Your task to perform on an android device: See recent photos Image 0: 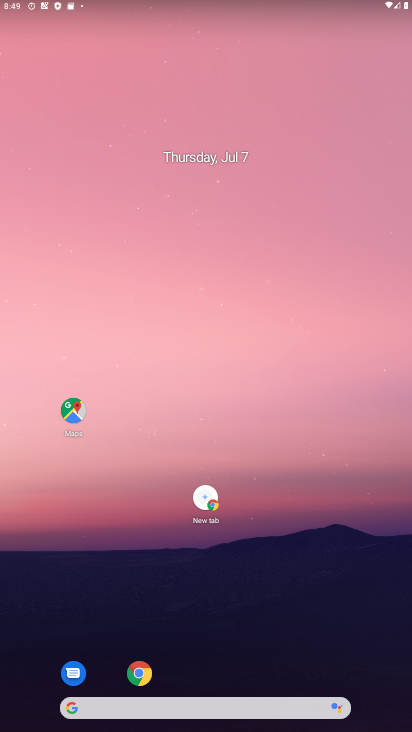
Step 0: press home button
Your task to perform on an android device: See recent photos Image 1: 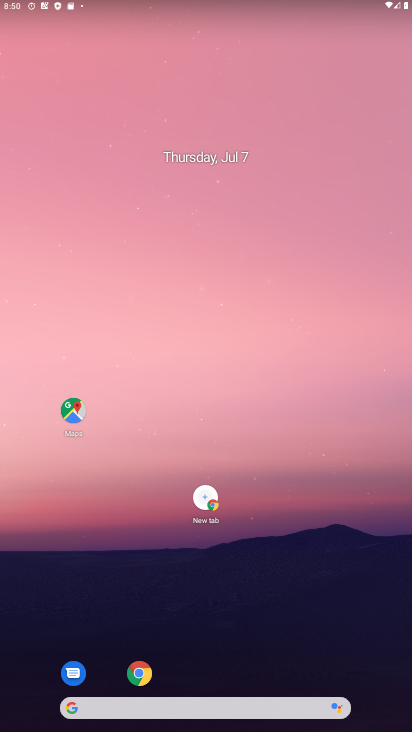
Step 1: drag from (301, 639) to (236, 0)
Your task to perform on an android device: See recent photos Image 2: 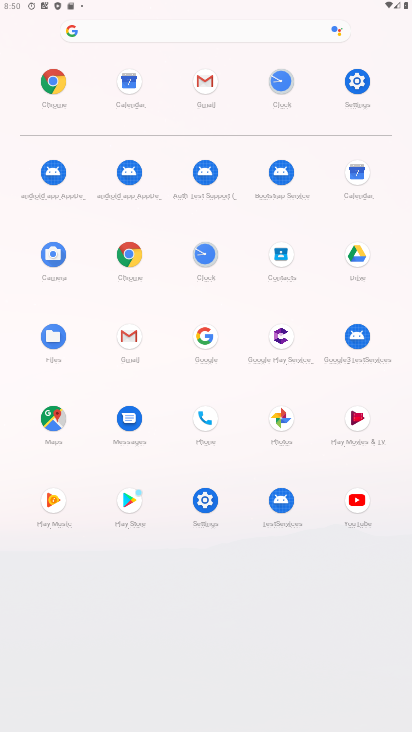
Step 2: click (285, 417)
Your task to perform on an android device: See recent photos Image 3: 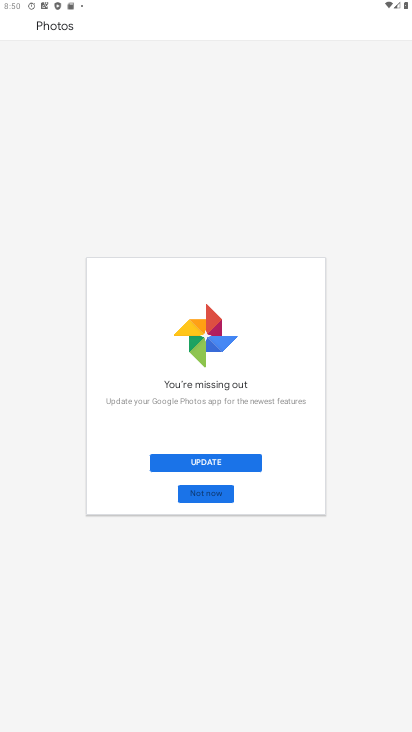
Step 3: click (214, 462)
Your task to perform on an android device: See recent photos Image 4: 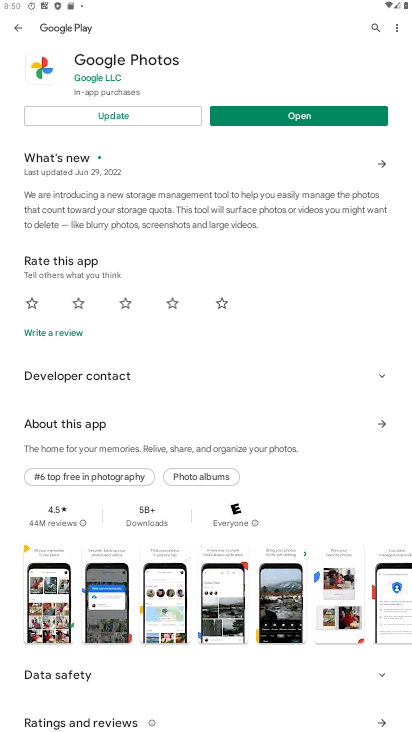
Step 4: click (145, 116)
Your task to perform on an android device: See recent photos Image 5: 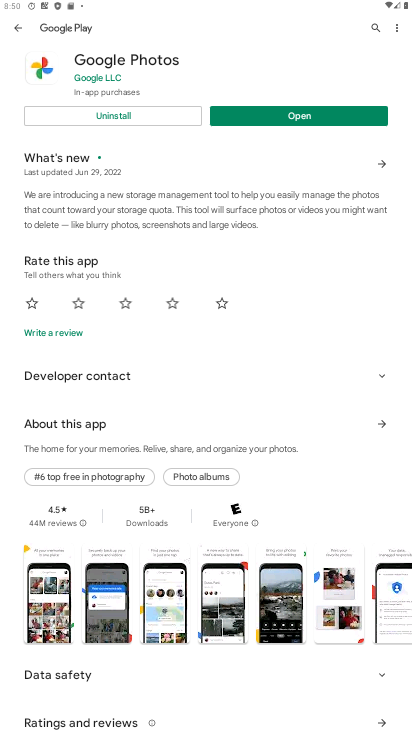
Step 5: click (265, 122)
Your task to perform on an android device: See recent photos Image 6: 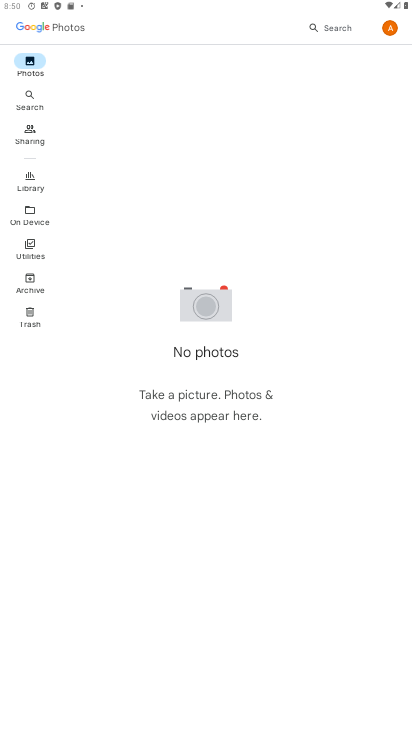
Step 6: task complete